Your task to perform on an android device: Search for vegetarian restaurants on Maps Image 0: 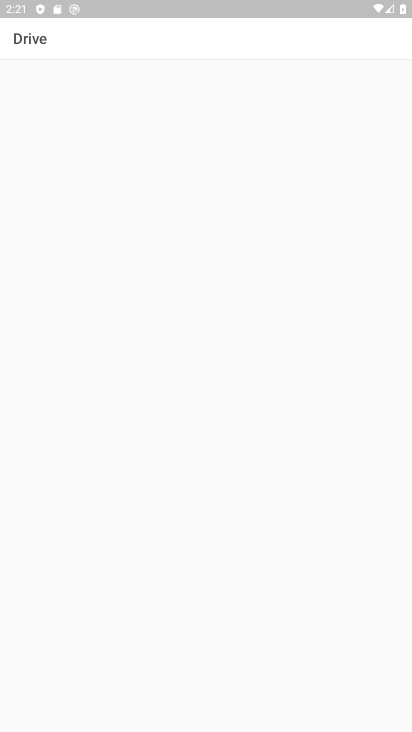
Step 0: press home button
Your task to perform on an android device: Search for vegetarian restaurants on Maps Image 1: 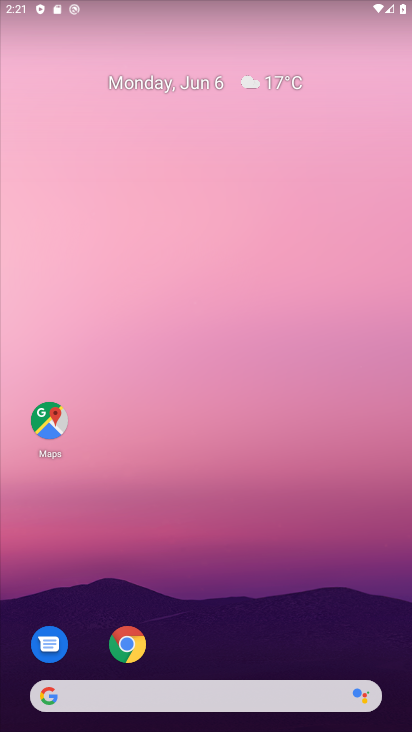
Step 1: click (35, 424)
Your task to perform on an android device: Search for vegetarian restaurants on Maps Image 2: 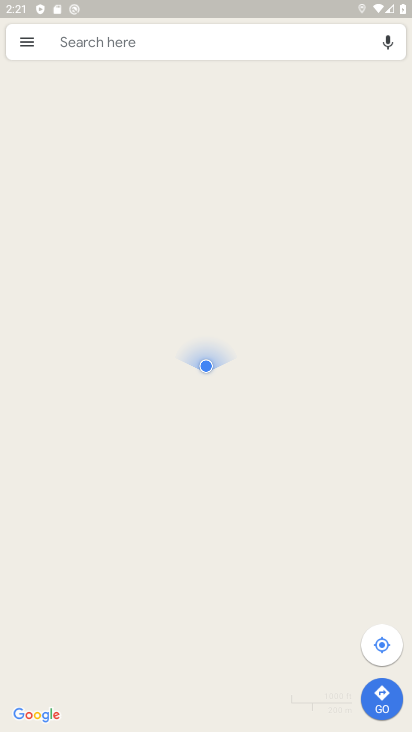
Step 2: click (140, 43)
Your task to perform on an android device: Search for vegetarian restaurants on Maps Image 3: 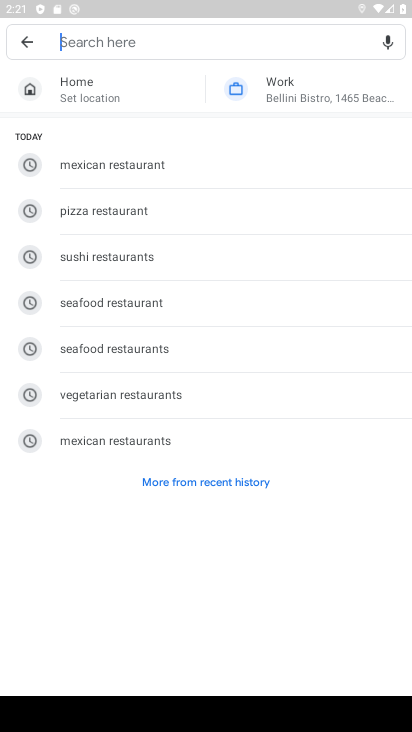
Step 3: type "vegetarian restaurants"
Your task to perform on an android device: Search for vegetarian restaurants on Maps Image 4: 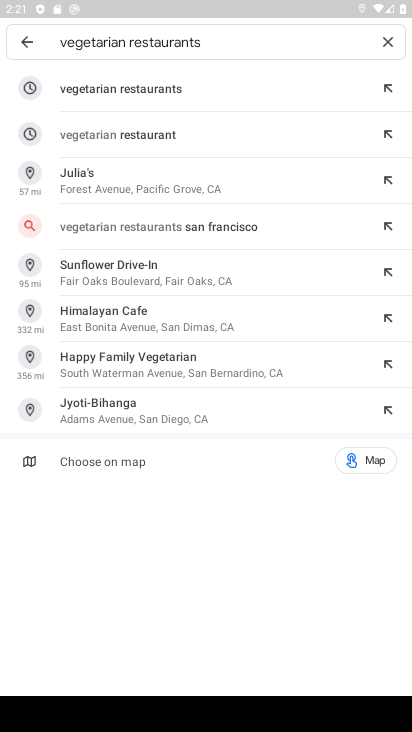
Step 4: click (135, 96)
Your task to perform on an android device: Search for vegetarian restaurants on Maps Image 5: 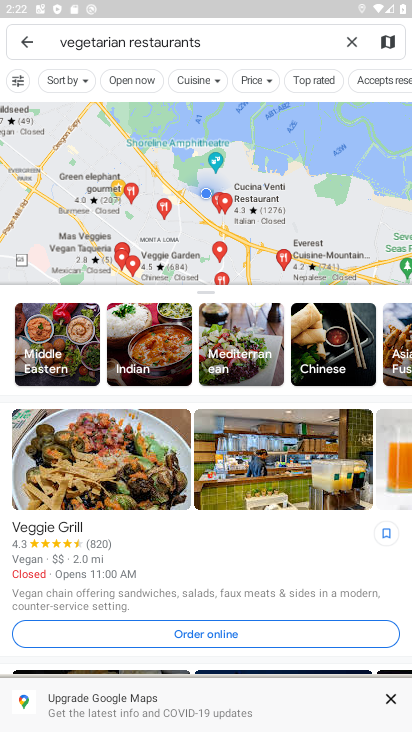
Step 5: task complete